Your task to perform on an android device: Go to internet settings Image 0: 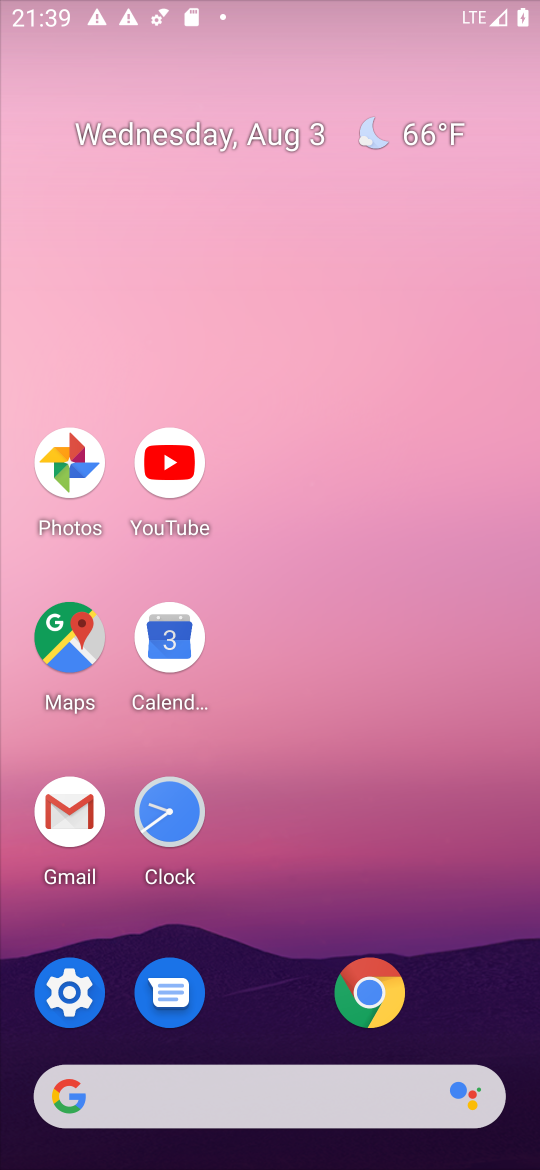
Step 0: press home button
Your task to perform on an android device: Go to internet settings Image 1: 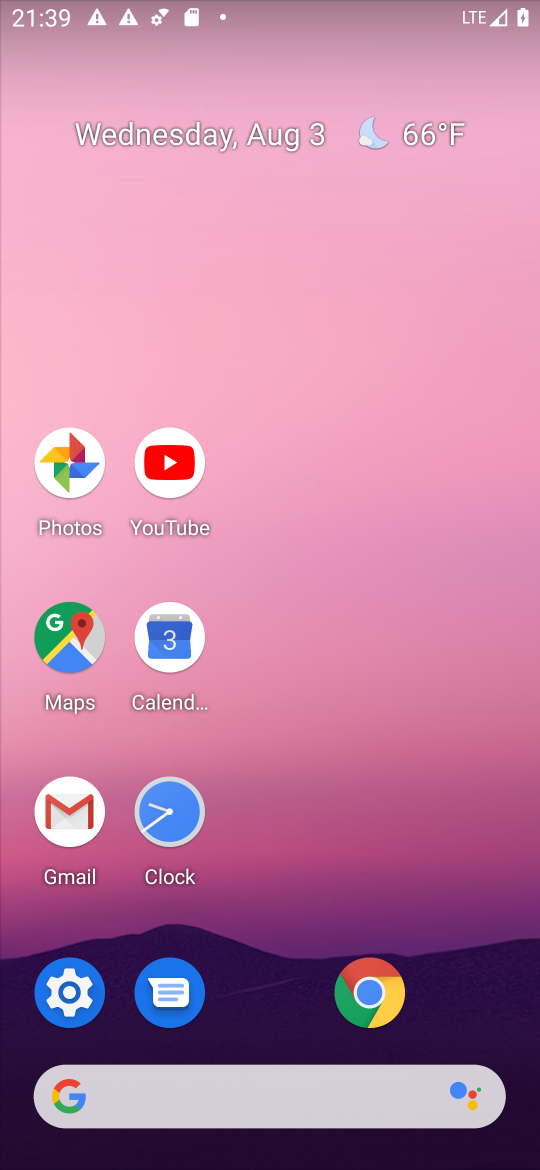
Step 1: click (73, 990)
Your task to perform on an android device: Go to internet settings Image 2: 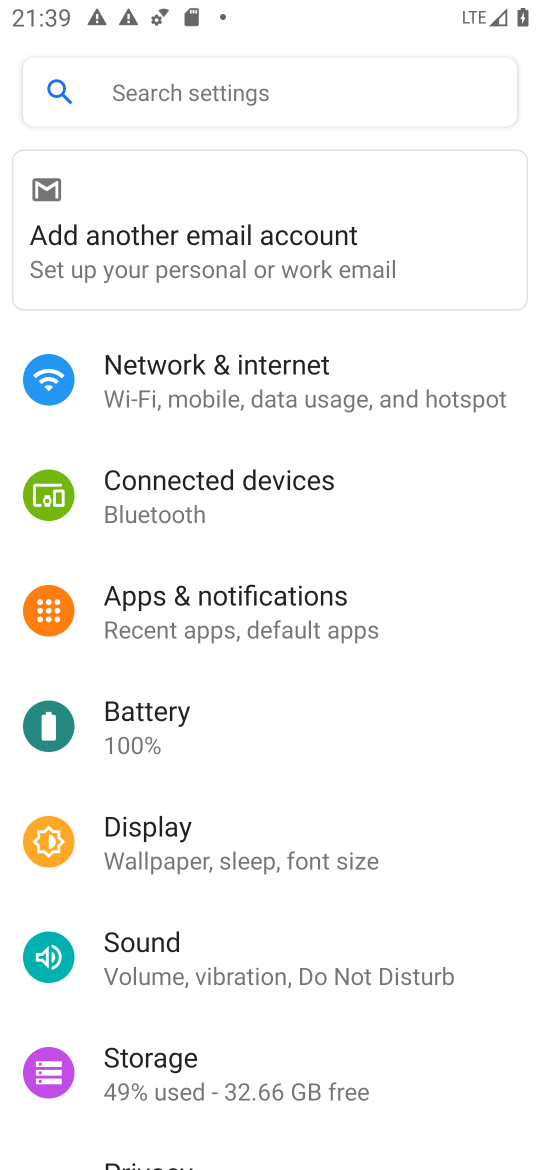
Step 2: click (234, 372)
Your task to perform on an android device: Go to internet settings Image 3: 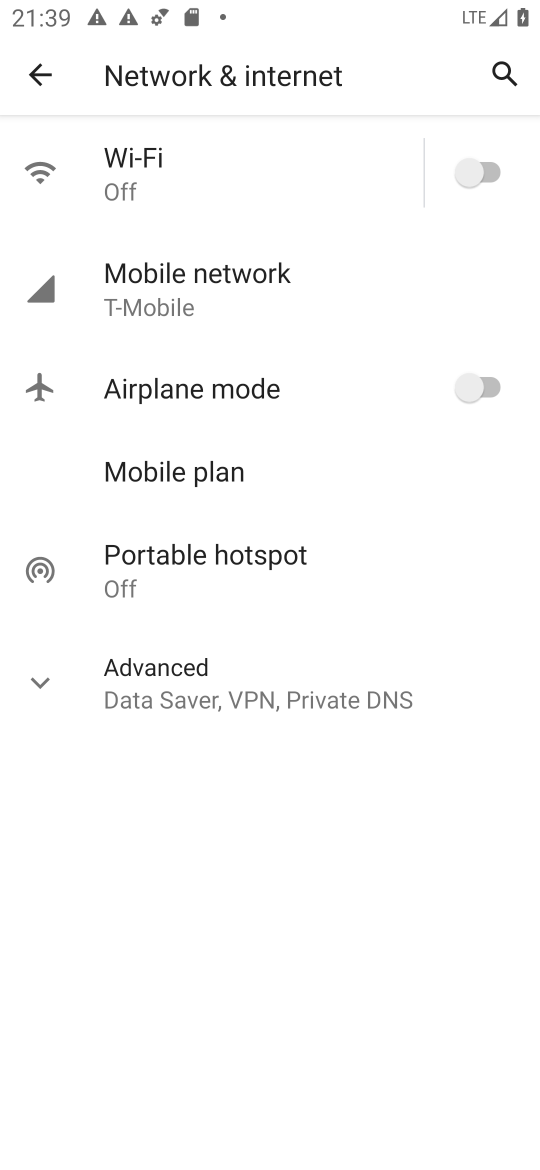
Step 3: task complete